Your task to perform on an android device: turn off data saver in the chrome app Image 0: 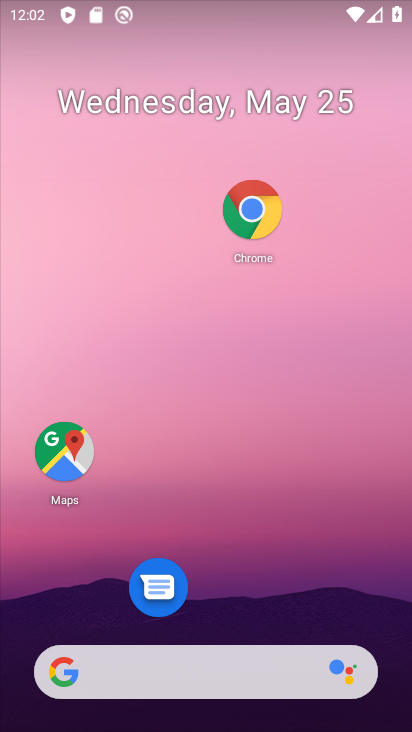
Step 0: press home button
Your task to perform on an android device: turn off data saver in the chrome app Image 1: 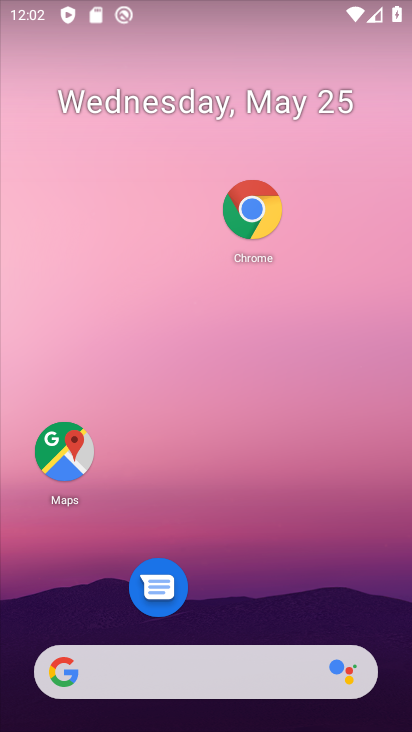
Step 1: click (254, 211)
Your task to perform on an android device: turn off data saver in the chrome app Image 2: 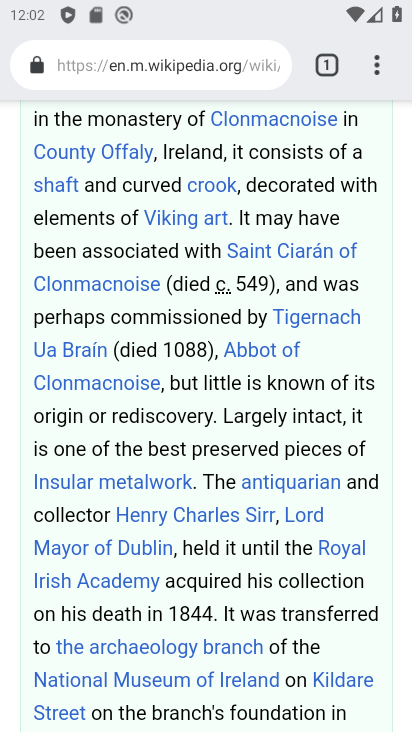
Step 2: click (383, 59)
Your task to perform on an android device: turn off data saver in the chrome app Image 3: 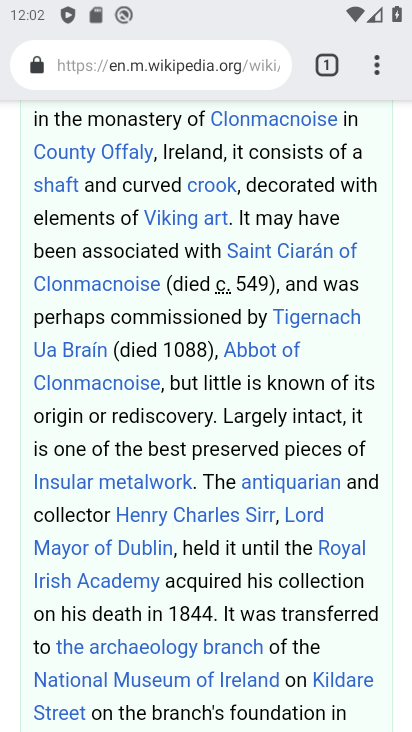
Step 3: click (376, 60)
Your task to perform on an android device: turn off data saver in the chrome app Image 4: 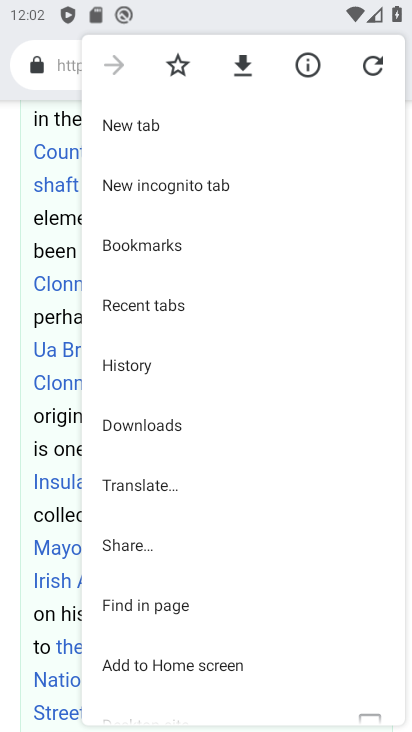
Step 4: drag from (201, 626) to (256, 250)
Your task to perform on an android device: turn off data saver in the chrome app Image 5: 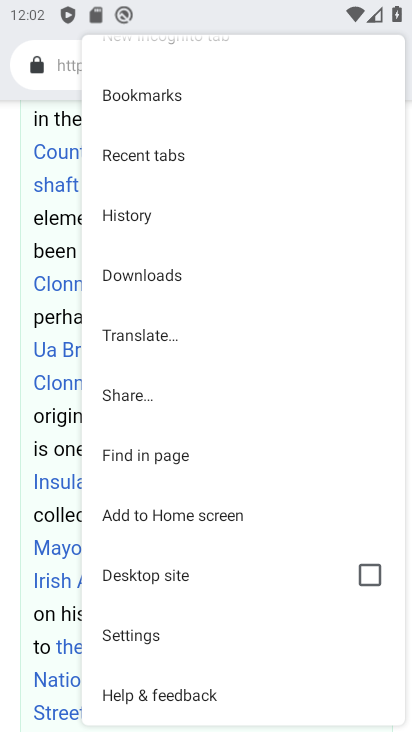
Step 5: click (176, 630)
Your task to perform on an android device: turn off data saver in the chrome app Image 6: 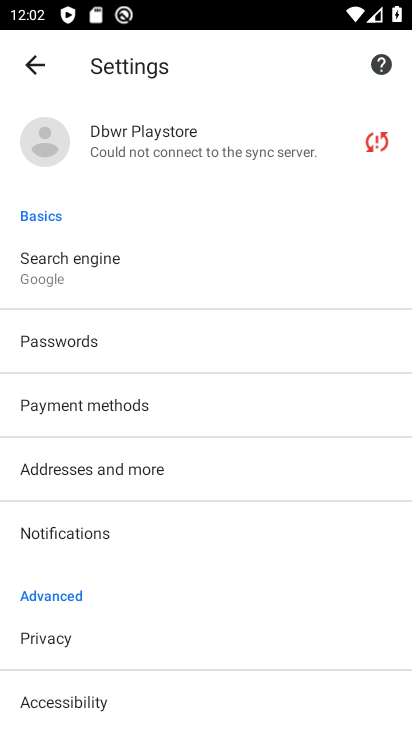
Step 6: drag from (175, 660) to (238, 177)
Your task to perform on an android device: turn off data saver in the chrome app Image 7: 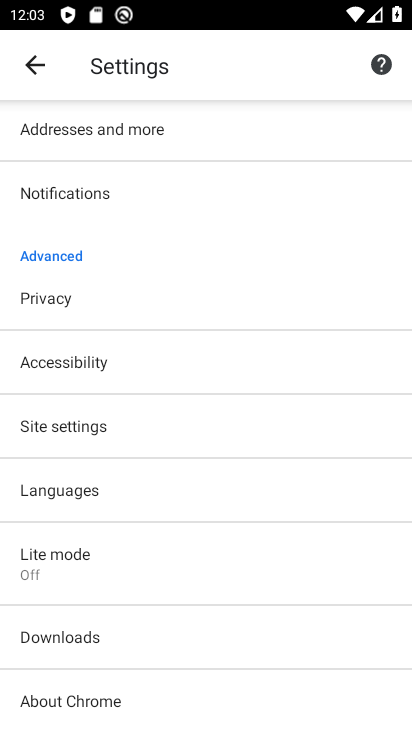
Step 7: click (110, 563)
Your task to perform on an android device: turn off data saver in the chrome app Image 8: 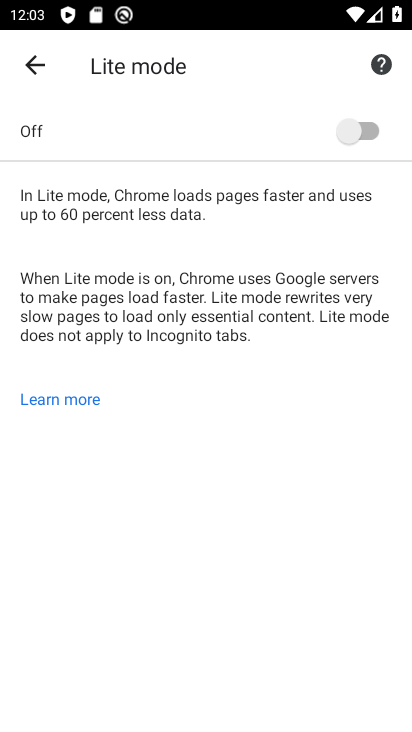
Step 8: task complete